Your task to perform on an android device: turn off improve location accuracy Image 0: 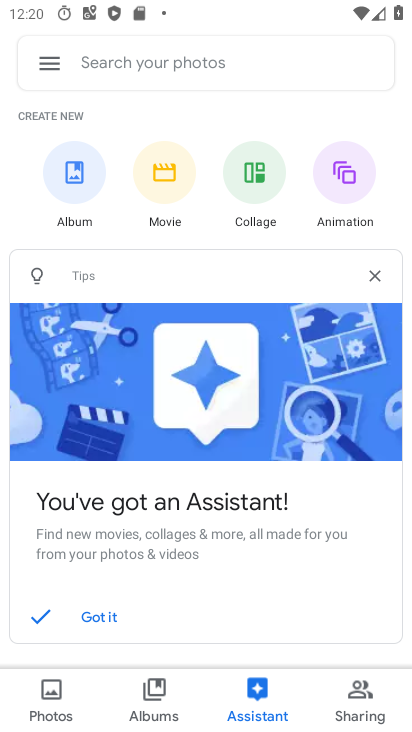
Step 0: press home button
Your task to perform on an android device: turn off improve location accuracy Image 1: 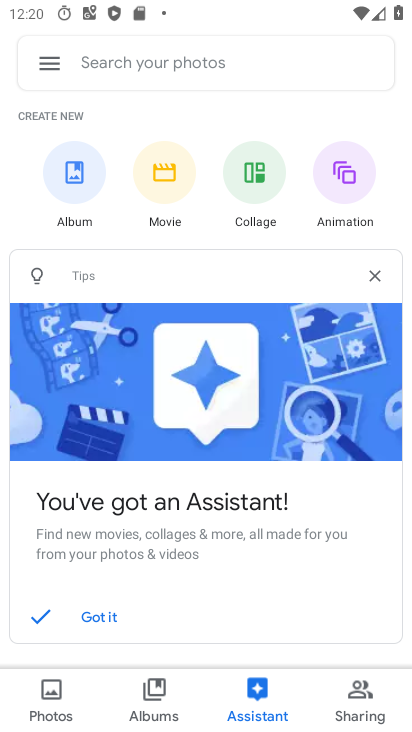
Step 1: click (38, 64)
Your task to perform on an android device: turn off improve location accuracy Image 2: 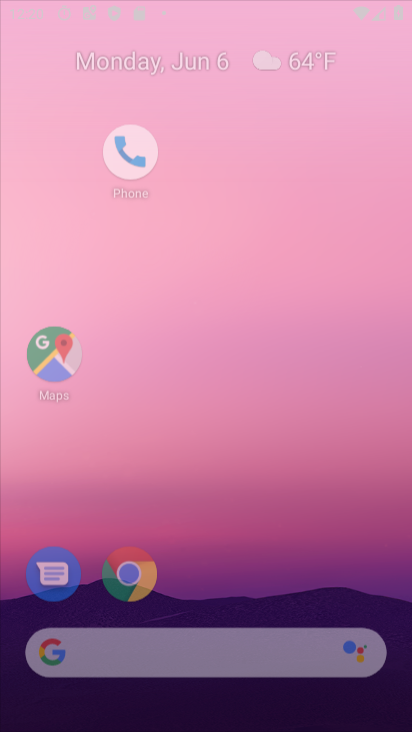
Step 2: click (27, 49)
Your task to perform on an android device: turn off improve location accuracy Image 3: 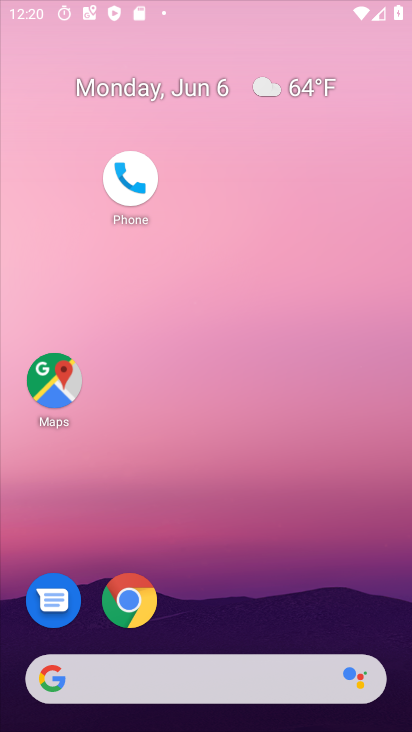
Step 3: click (21, 67)
Your task to perform on an android device: turn off improve location accuracy Image 4: 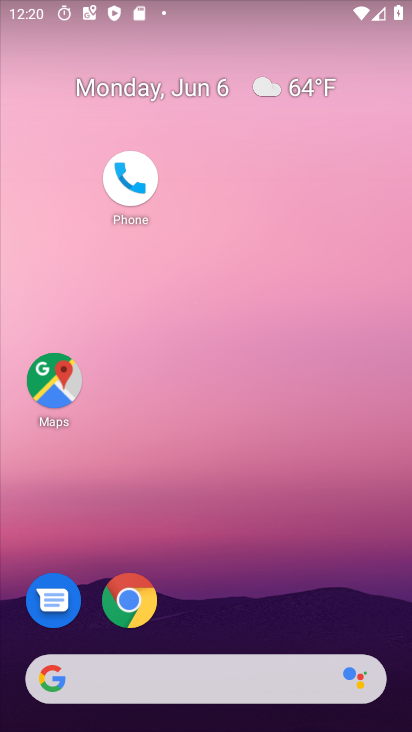
Step 4: drag from (198, 642) to (118, 71)
Your task to perform on an android device: turn off improve location accuracy Image 5: 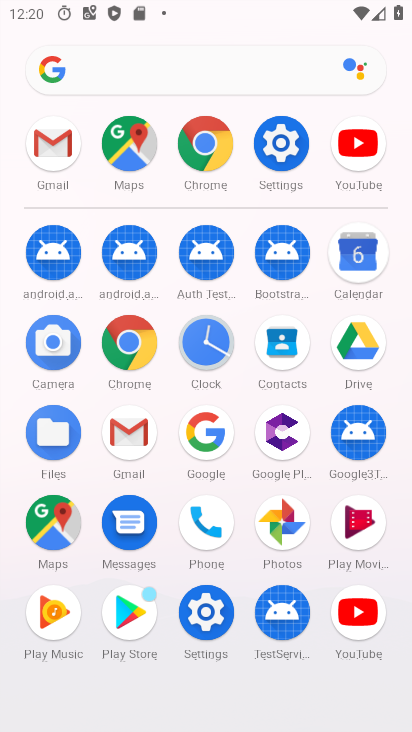
Step 5: click (278, 158)
Your task to perform on an android device: turn off improve location accuracy Image 6: 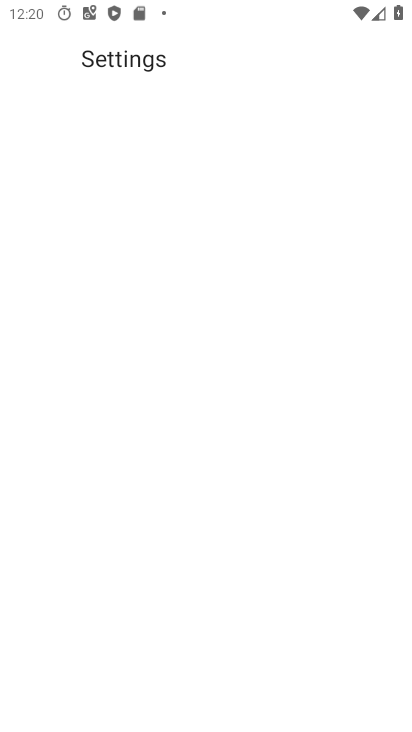
Step 6: click (271, 164)
Your task to perform on an android device: turn off improve location accuracy Image 7: 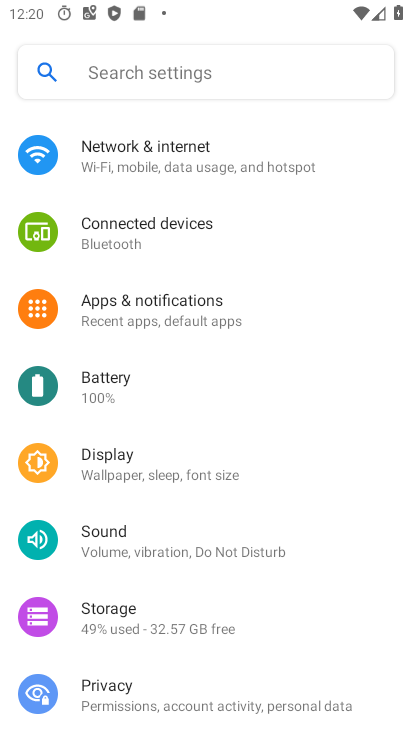
Step 7: click (272, 169)
Your task to perform on an android device: turn off improve location accuracy Image 8: 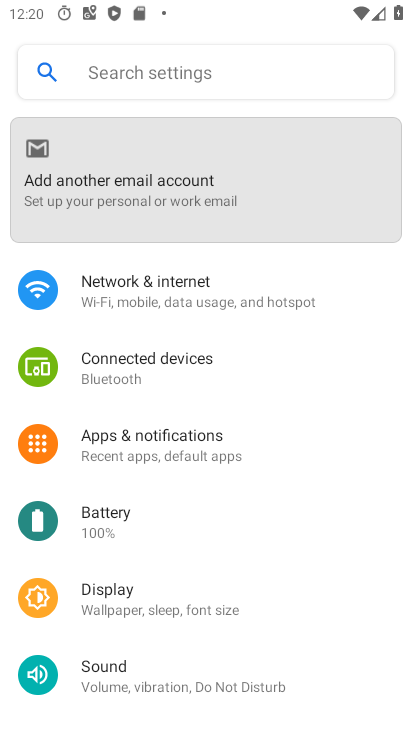
Step 8: click (283, 132)
Your task to perform on an android device: turn off improve location accuracy Image 9: 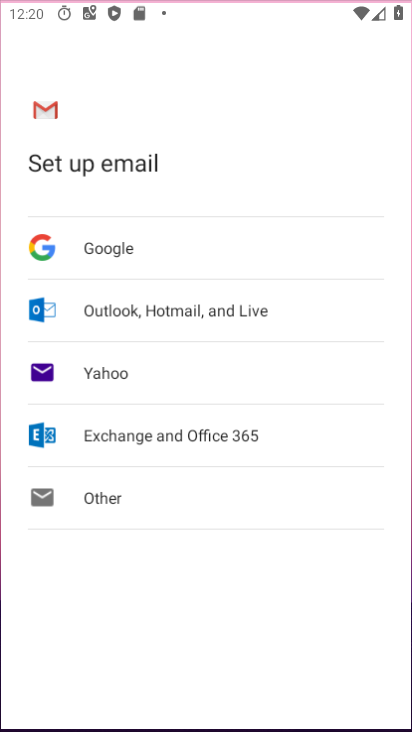
Step 9: click (284, 131)
Your task to perform on an android device: turn off improve location accuracy Image 10: 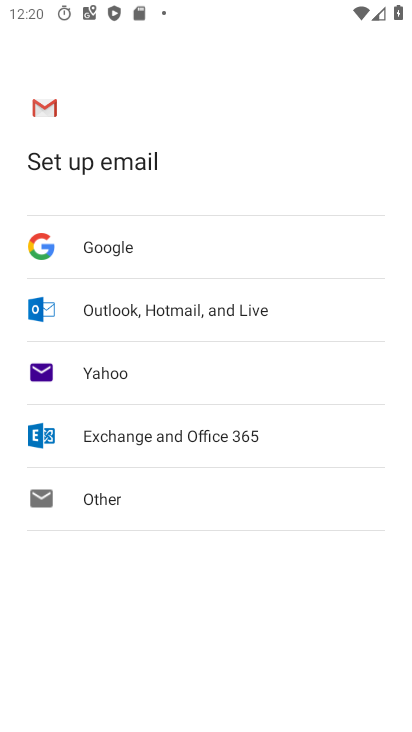
Step 10: click (277, 142)
Your task to perform on an android device: turn off improve location accuracy Image 11: 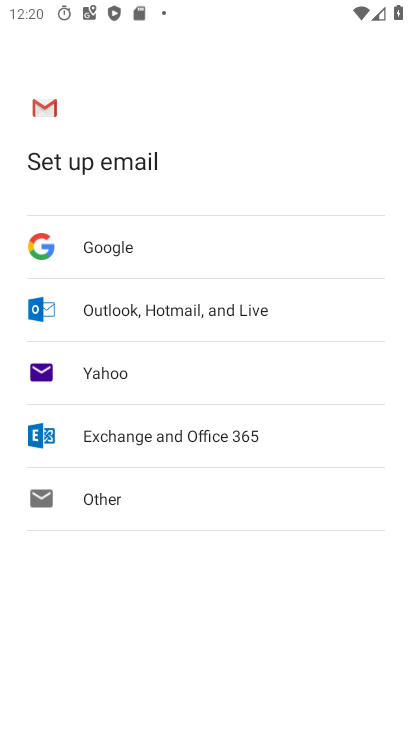
Step 11: press back button
Your task to perform on an android device: turn off improve location accuracy Image 12: 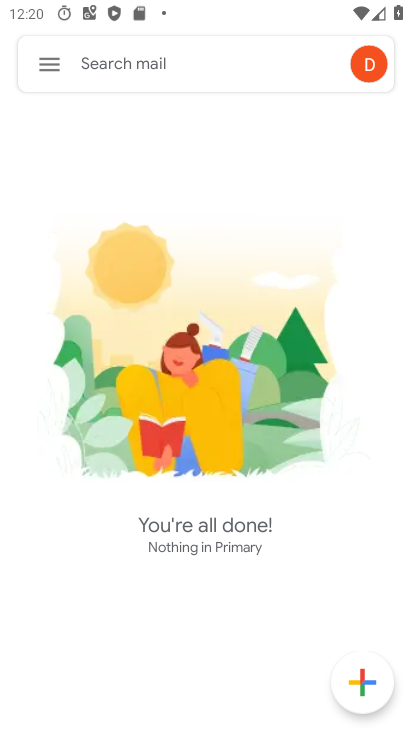
Step 12: press back button
Your task to perform on an android device: turn off improve location accuracy Image 13: 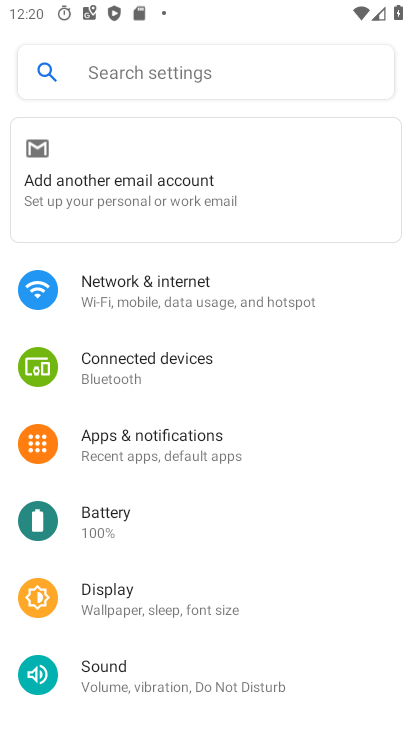
Step 13: drag from (188, 601) to (137, 200)
Your task to perform on an android device: turn off improve location accuracy Image 14: 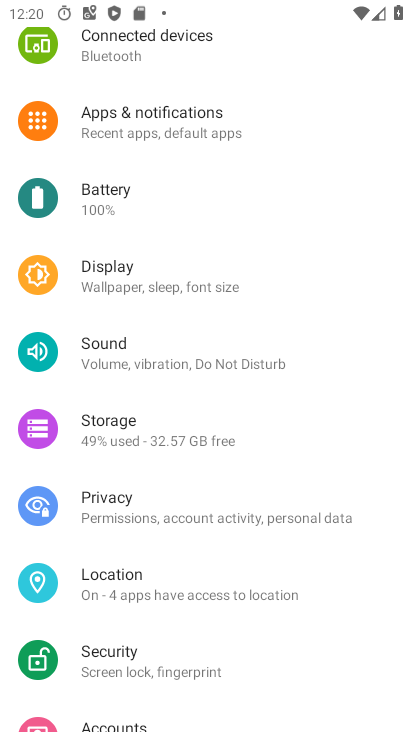
Step 14: drag from (179, 530) to (175, 185)
Your task to perform on an android device: turn off improve location accuracy Image 15: 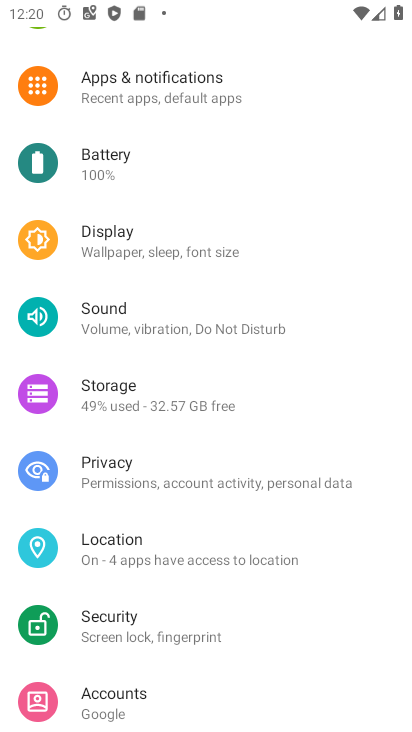
Step 15: click (123, 261)
Your task to perform on an android device: turn off improve location accuracy Image 16: 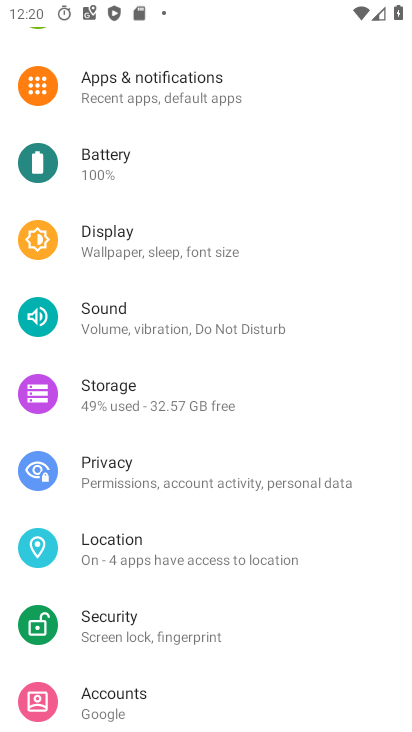
Step 16: drag from (168, 472) to (168, 179)
Your task to perform on an android device: turn off improve location accuracy Image 17: 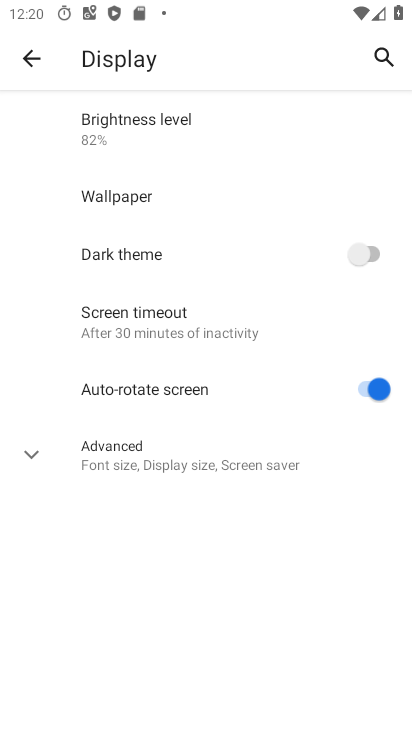
Step 17: click (32, 61)
Your task to perform on an android device: turn off improve location accuracy Image 18: 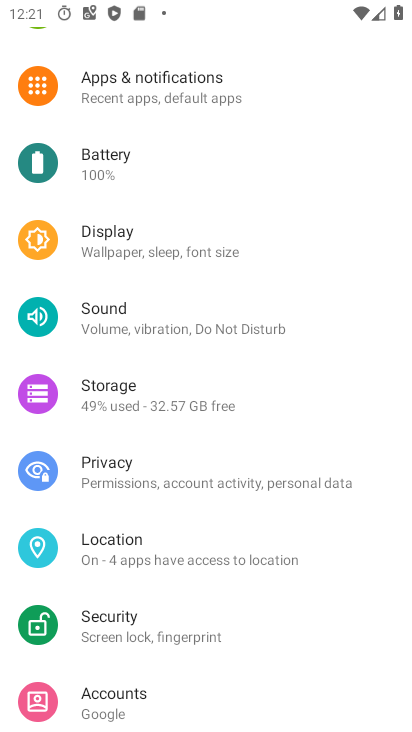
Step 18: click (130, 558)
Your task to perform on an android device: turn off improve location accuracy Image 19: 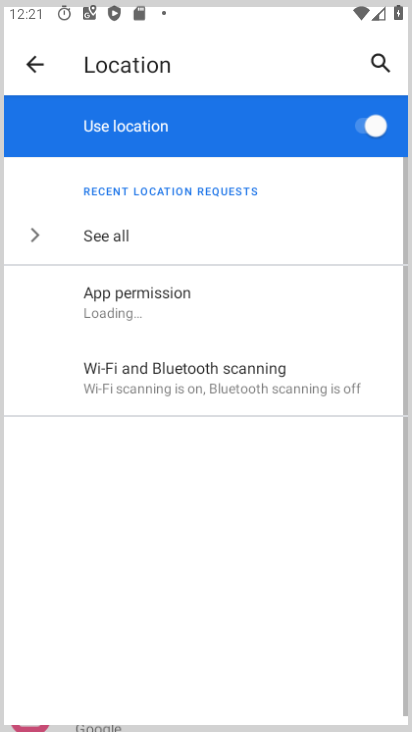
Step 19: click (131, 549)
Your task to perform on an android device: turn off improve location accuracy Image 20: 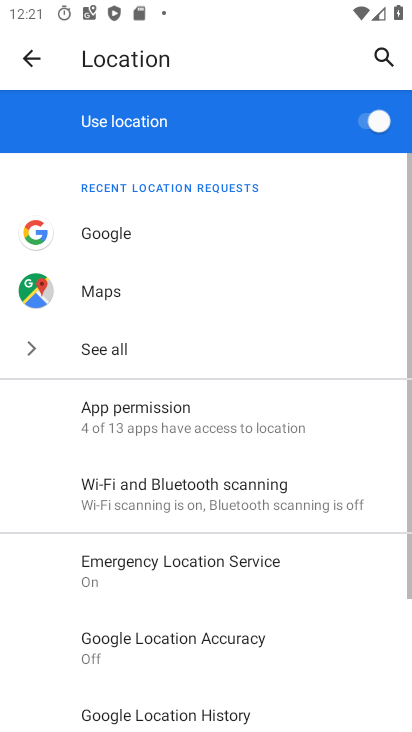
Step 20: drag from (321, 638) to (232, 273)
Your task to perform on an android device: turn off improve location accuracy Image 21: 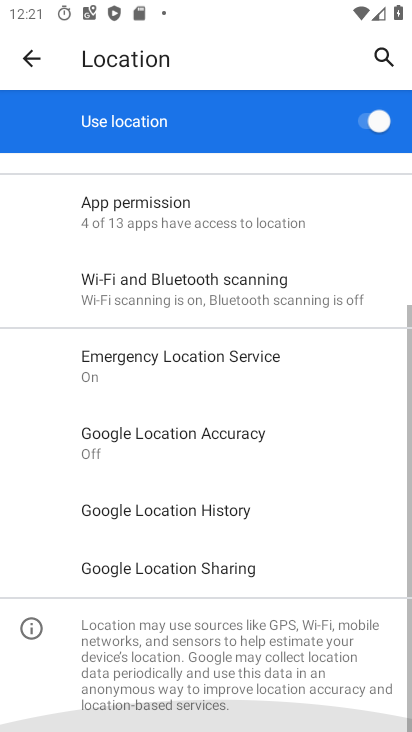
Step 21: drag from (246, 468) to (240, 250)
Your task to perform on an android device: turn off improve location accuracy Image 22: 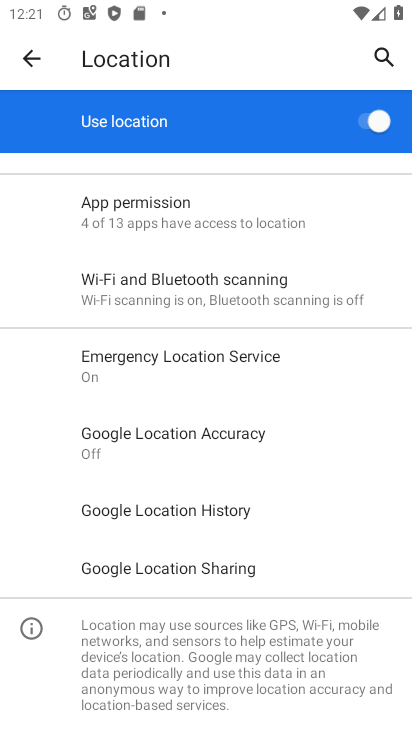
Step 22: click (138, 444)
Your task to perform on an android device: turn off improve location accuracy Image 23: 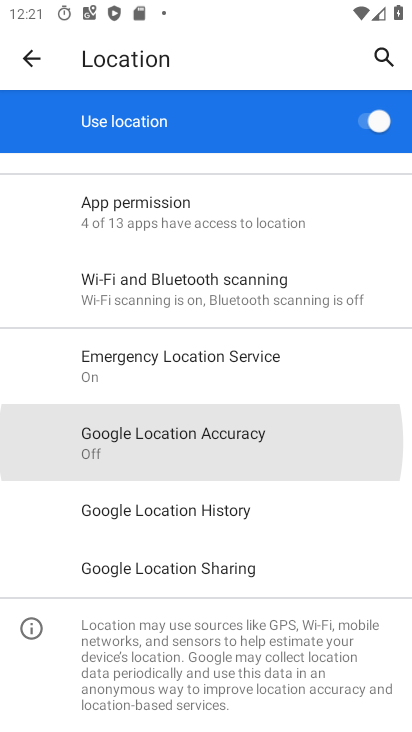
Step 23: click (138, 444)
Your task to perform on an android device: turn off improve location accuracy Image 24: 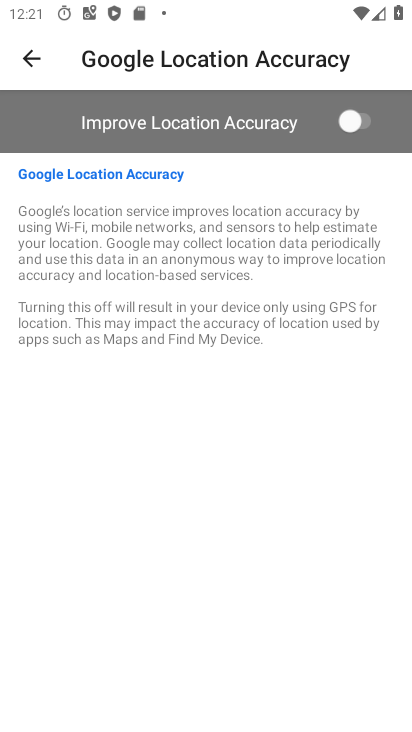
Step 24: task complete